Your task to perform on an android device: install app "Gboard" Image 0: 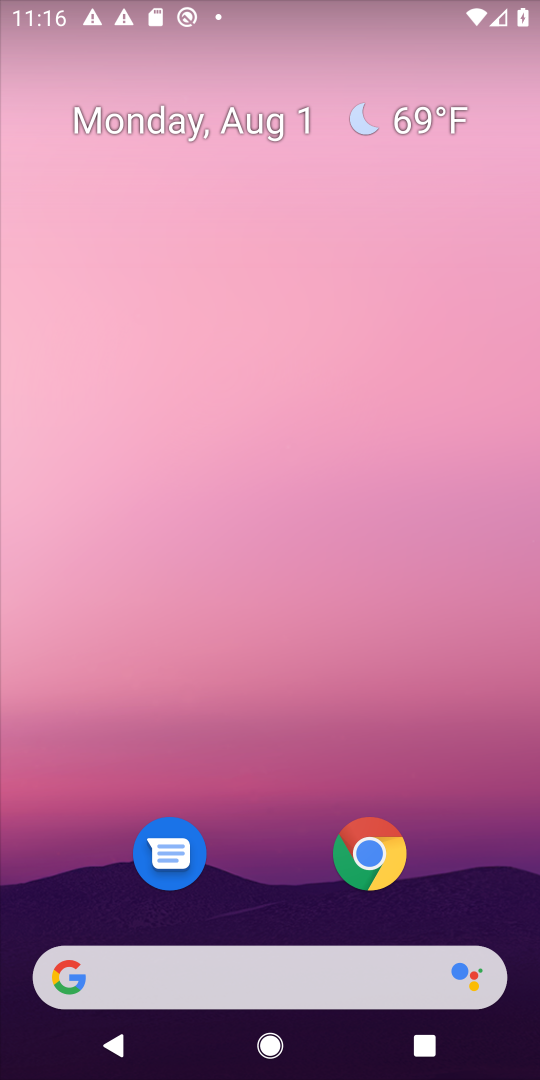
Step 0: drag from (275, 878) to (35, 238)
Your task to perform on an android device: install app "Gboard" Image 1: 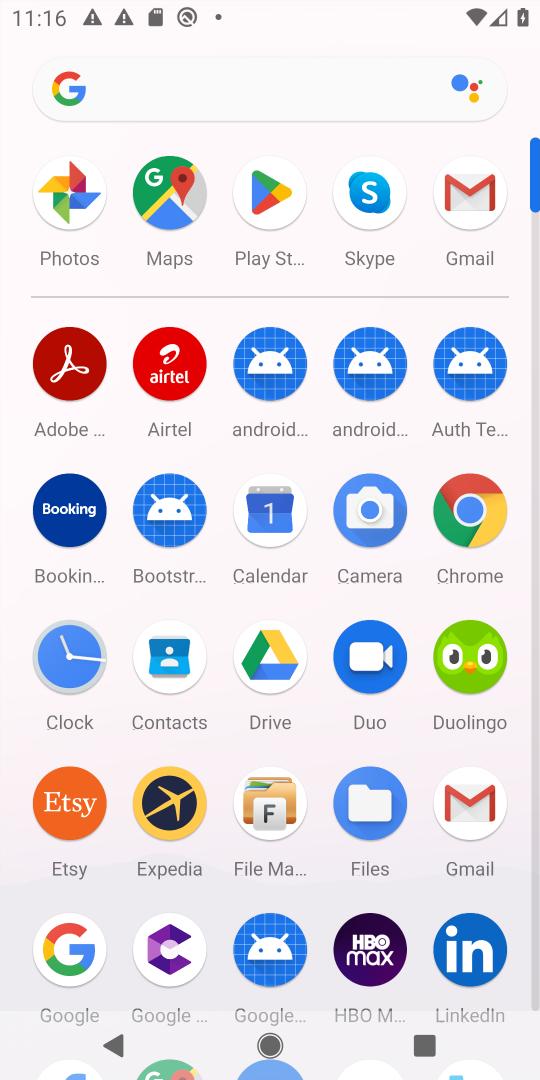
Step 1: click (277, 198)
Your task to perform on an android device: install app "Gboard" Image 2: 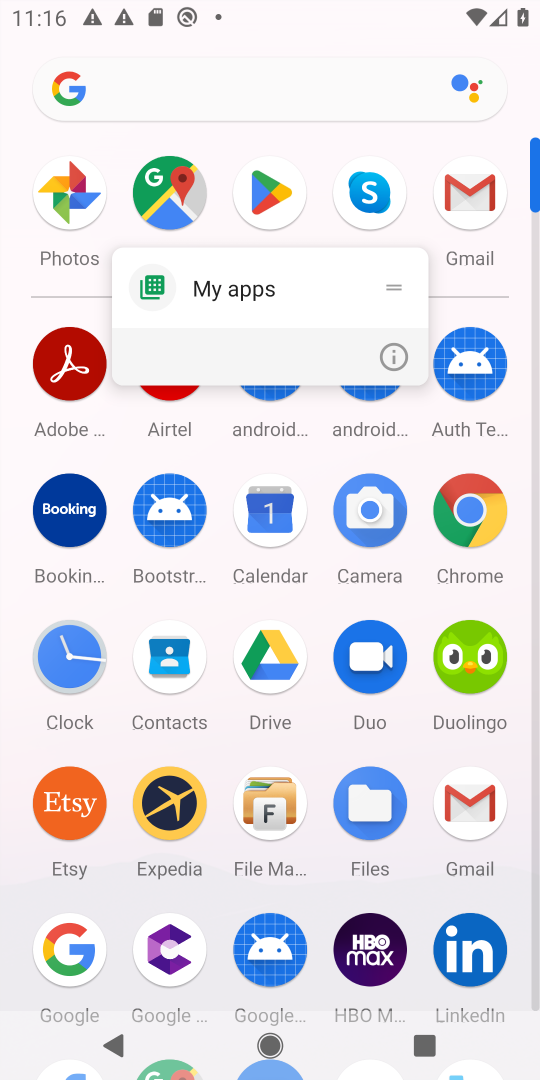
Step 2: click (403, 346)
Your task to perform on an android device: install app "Gboard" Image 3: 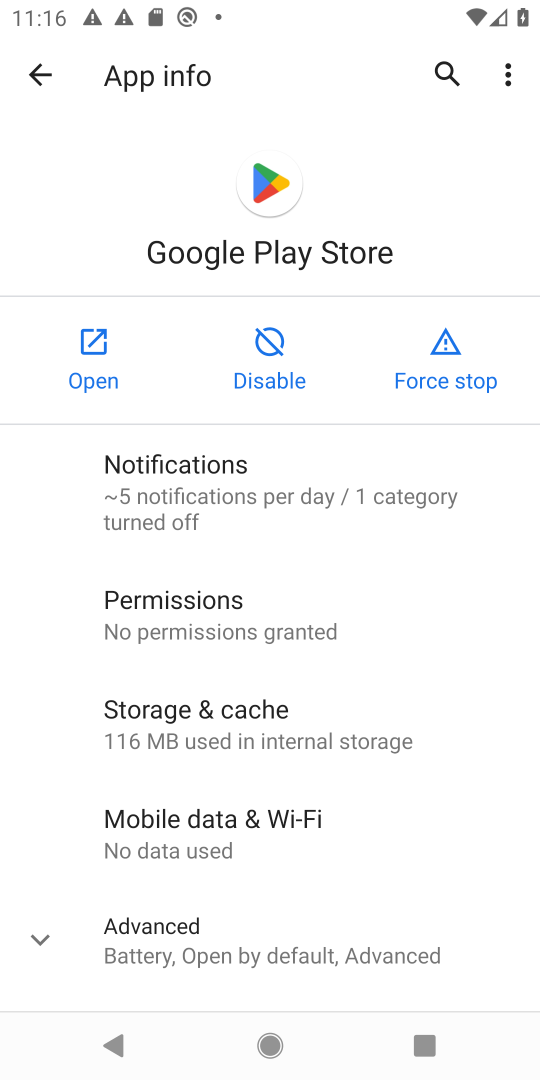
Step 3: click (96, 359)
Your task to perform on an android device: install app "Gboard" Image 4: 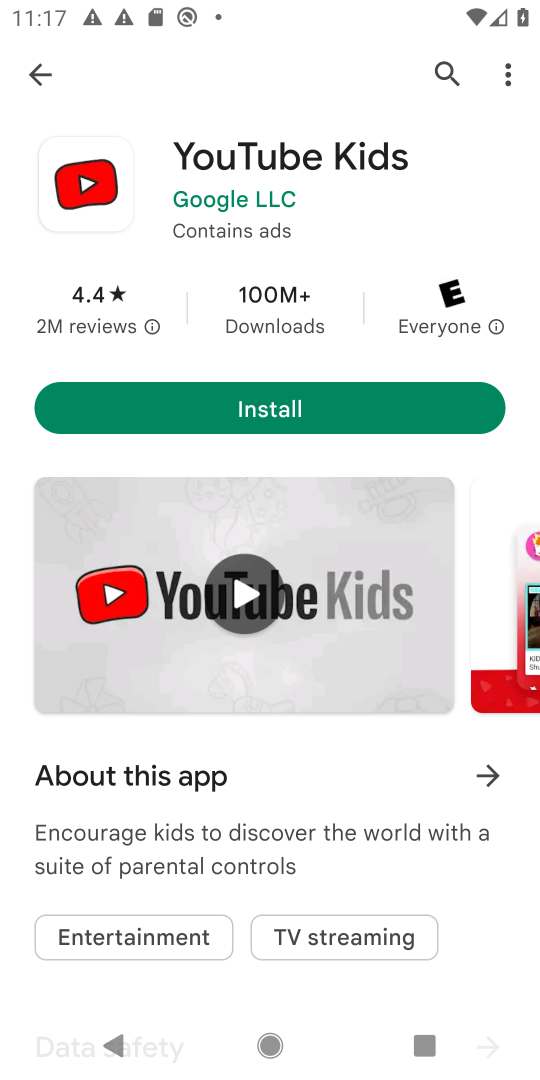
Step 4: drag from (299, 225) to (371, 834)
Your task to perform on an android device: install app "Gboard" Image 5: 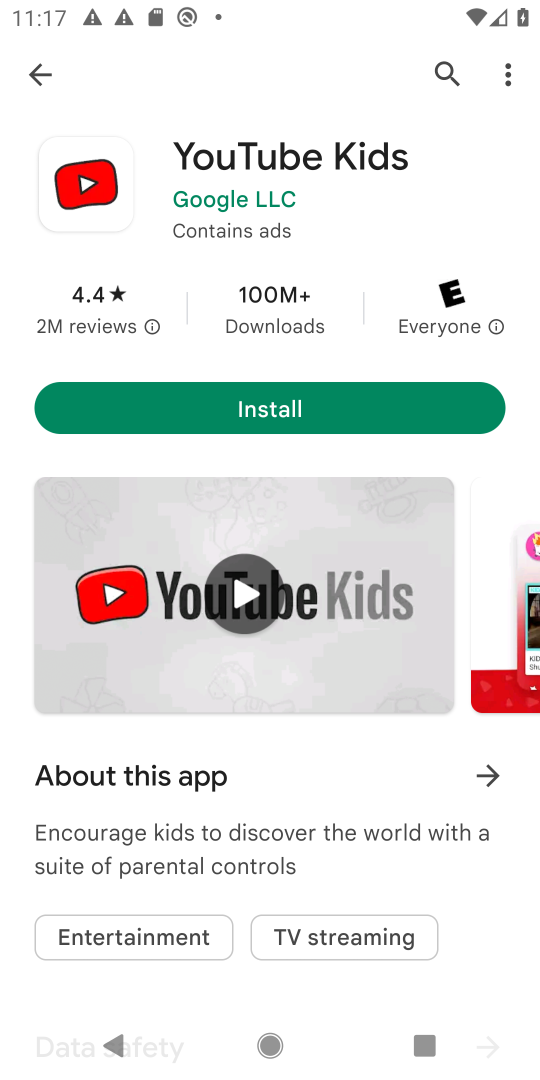
Step 5: drag from (389, 193) to (317, 857)
Your task to perform on an android device: install app "Gboard" Image 6: 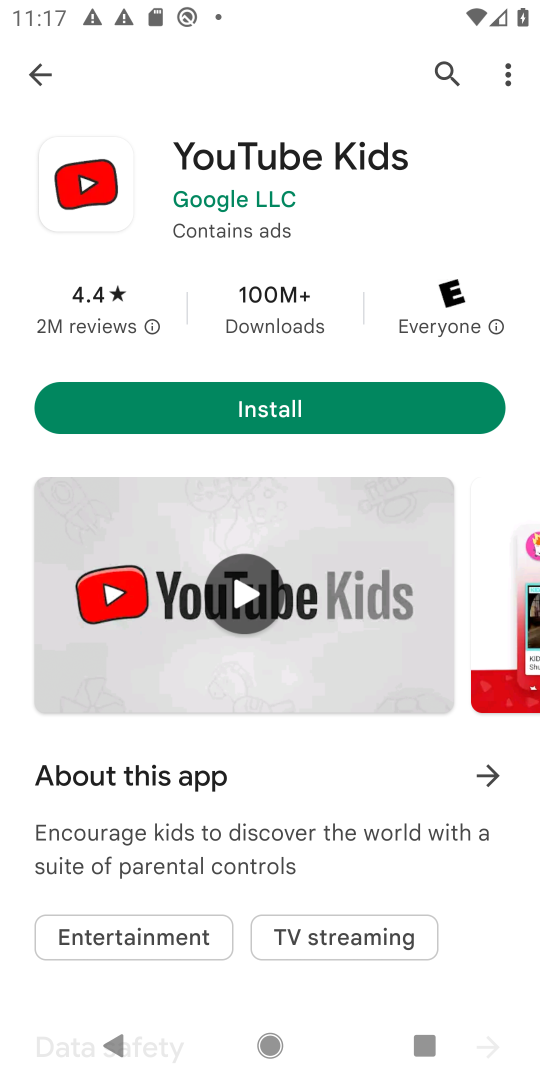
Step 6: click (446, 72)
Your task to perform on an android device: install app "Gboard" Image 7: 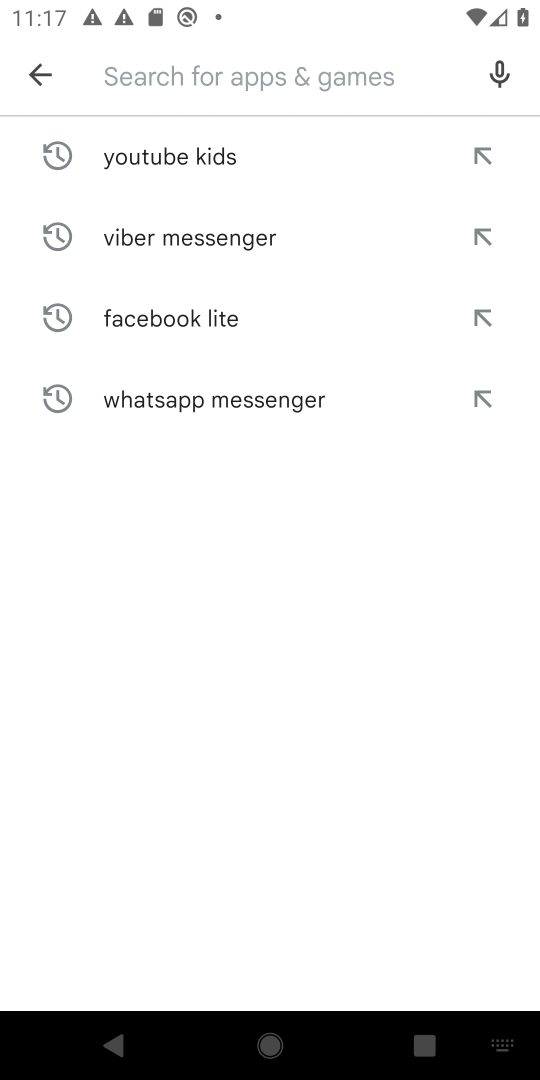
Step 7: type "Gboard"
Your task to perform on an android device: install app "Gboard" Image 8: 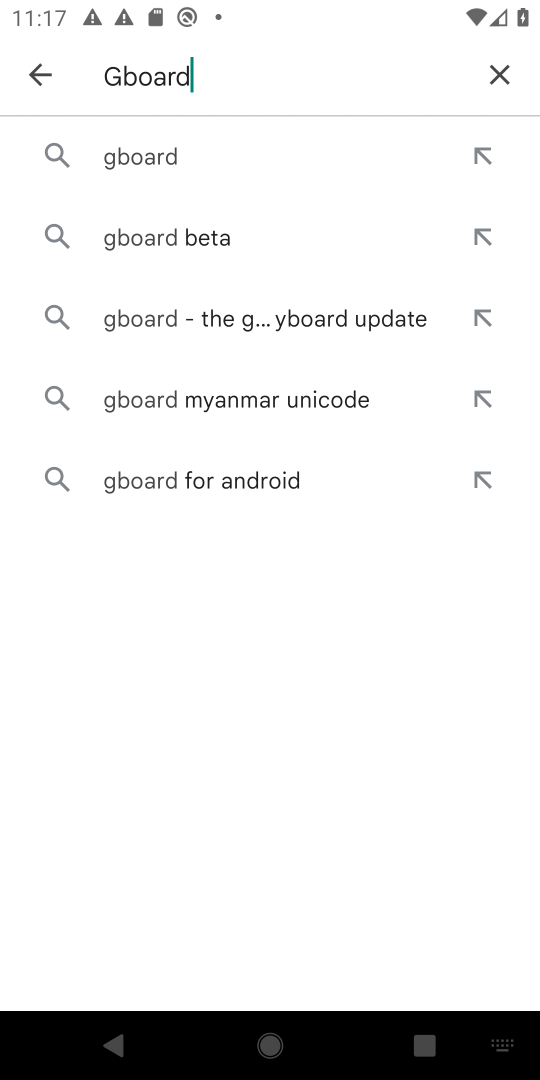
Step 8: click (202, 150)
Your task to perform on an android device: install app "Gboard" Image 9: 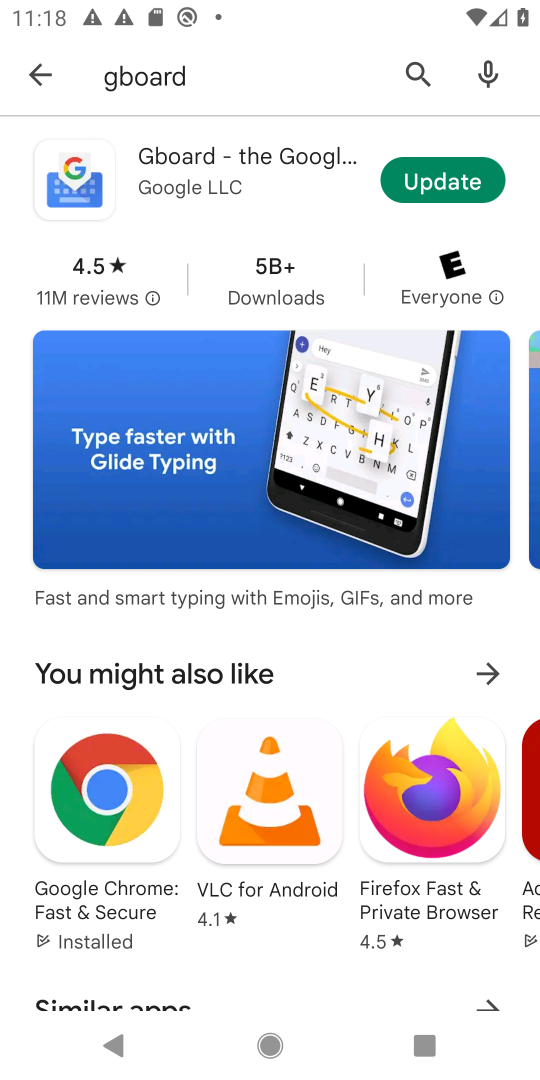
Step 9: click (150, 175)
Your task to perform on an android device: install app "Gboard" Image 10: 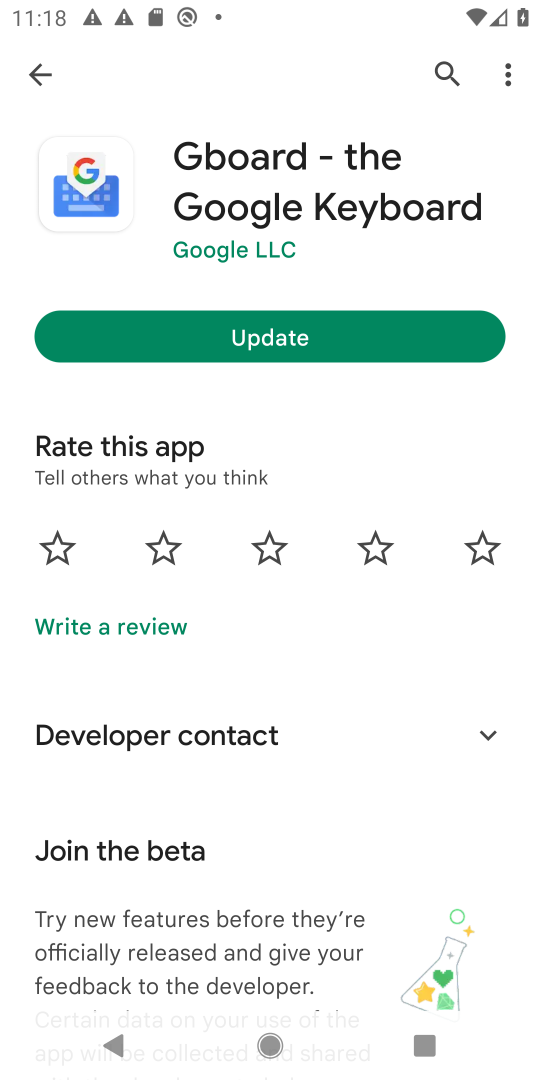
Step 10: task complete